Your task to perform on an android device: Go to Yahoo.com Image 0: 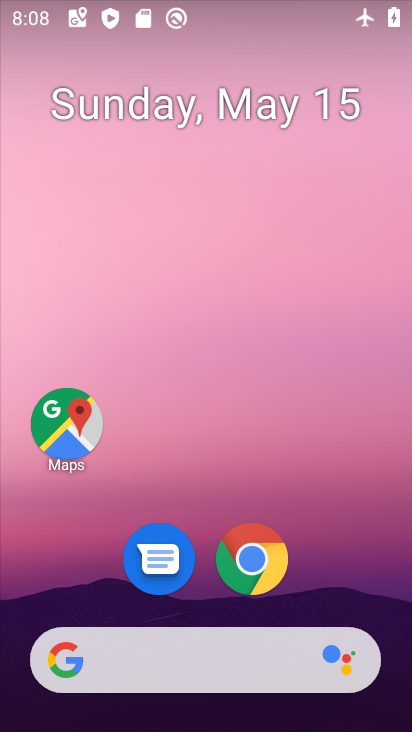
Step 0: drag from (373, 546) to (266, 233)
Your task to perform on an android device: Go to Yahoo.com Image 1: 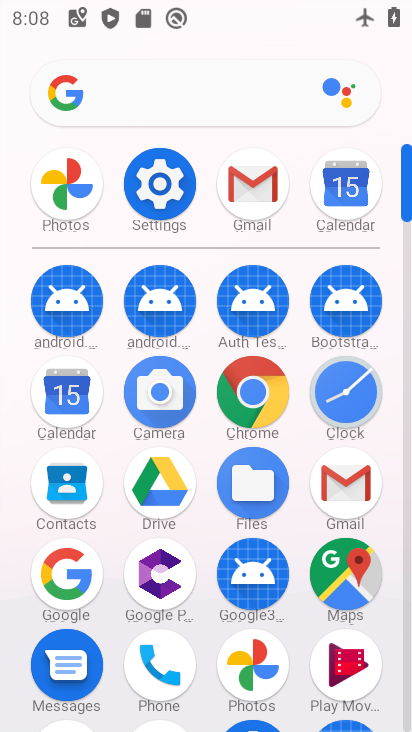
Step 1: click (148, 201)
Your task to perform on an android device: Go to Yahoo.com Image 2: 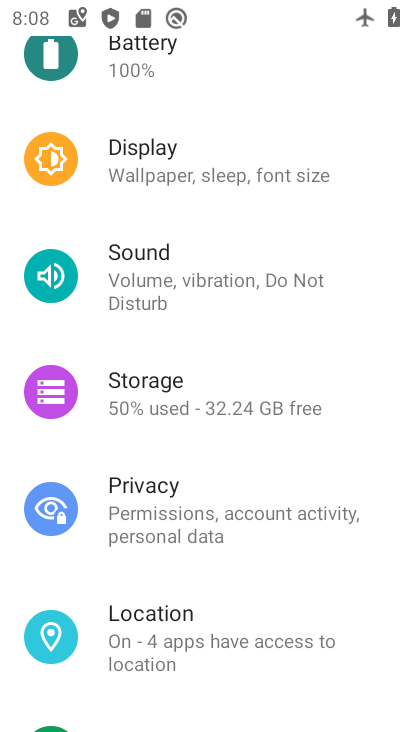
Step 2: drag from (148, 201) to (116, 605)
Your task to perform on an android device: Go to Yahoo.com Image 3: 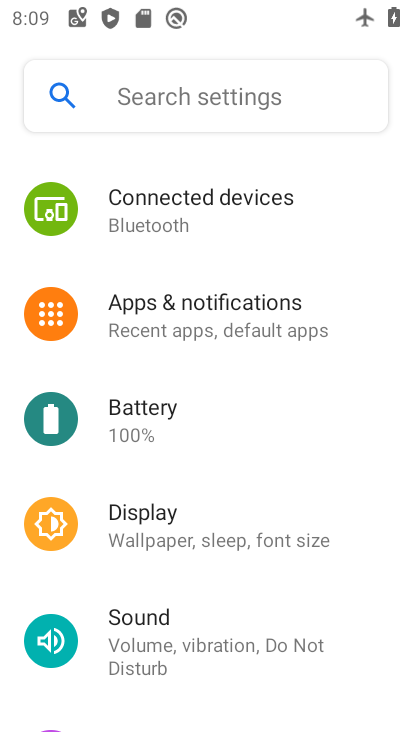
Step 3: drag from (169, 379) to (212, 723)
Your task to perform on an android device: Go to Yahoo.com Image 4: 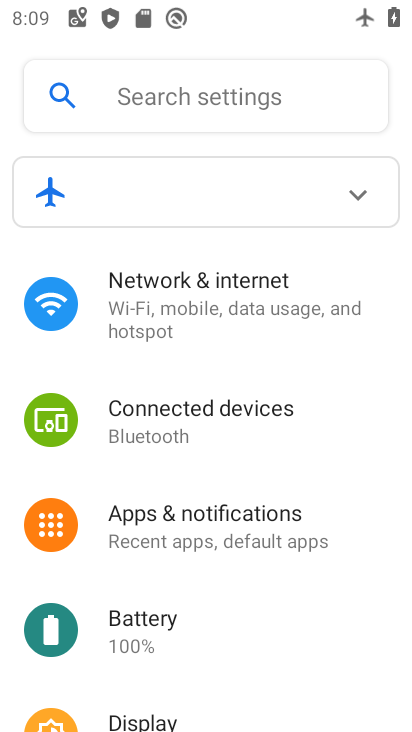
Step 4: click (223, 344)
Your task to perform on an android device: Go to Yahoo.com Image 5: 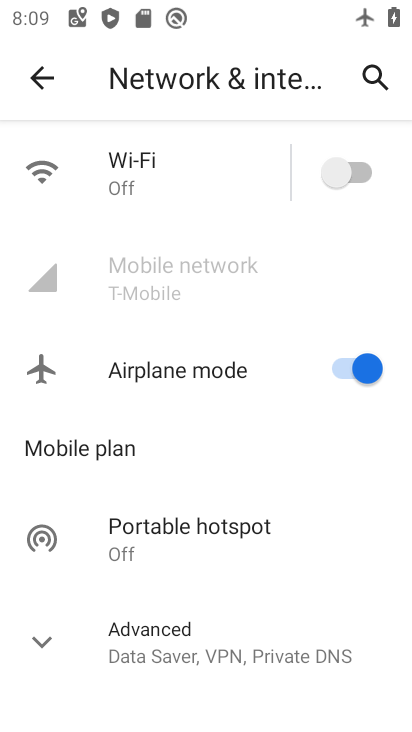
Step 5: click (341, 380)
Your task to perform on an android device: Go to Yahoo.com Image 6: 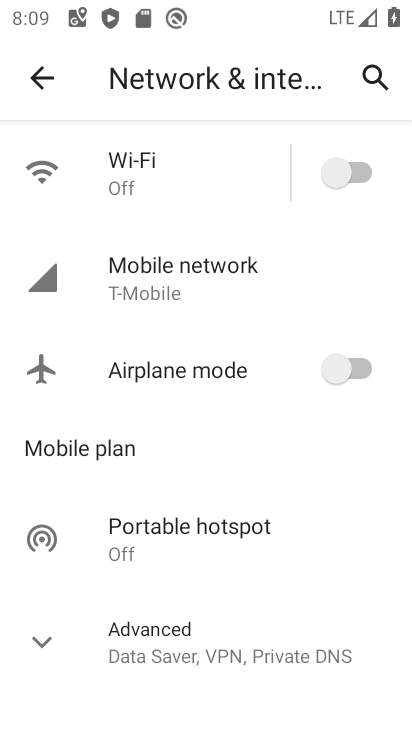
Step 6: click (354, 180)
Your task to perform on an android device: Go to Yahoo.com Image 7: 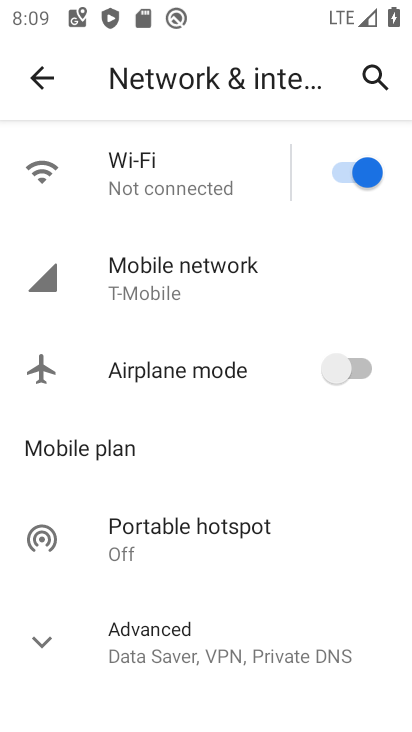
Step 7: press home button
Your task to perform on an android device: Go to Yahoo.com Image 8: 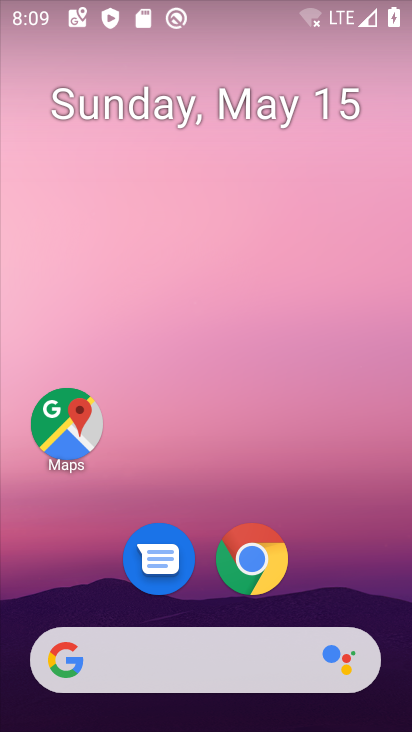
Step 8: click (248, 587)
Your task to perform on an android device: Go to Yahoo.com Image 9: 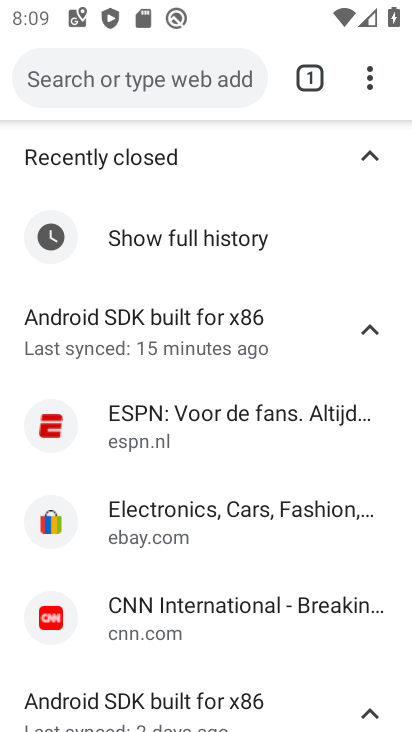
Step 9: click (168, 71)
Your task to perform on an android device: Go to Yahoo.com Image 10: 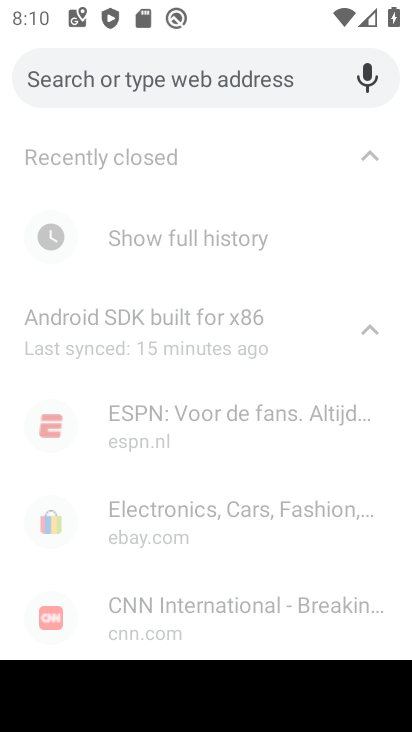
Step 10: type "yahoo.com"
Your task to perform on an android device: Go to Yahoo.com Image 11: 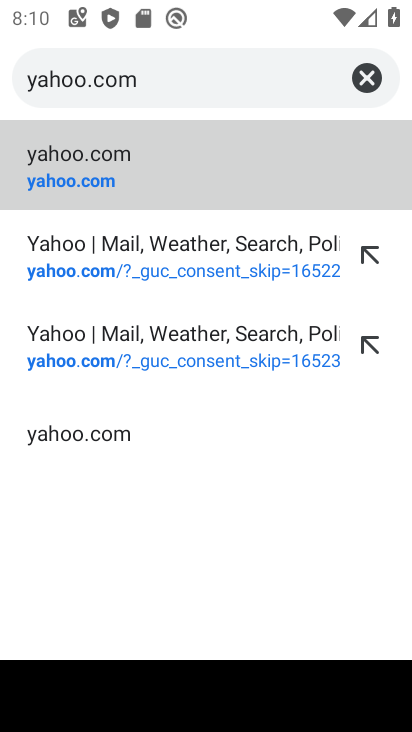
Step 11: click (216, 252)
Your task to perform on an android device: Go to Yahoo.com Image 12: 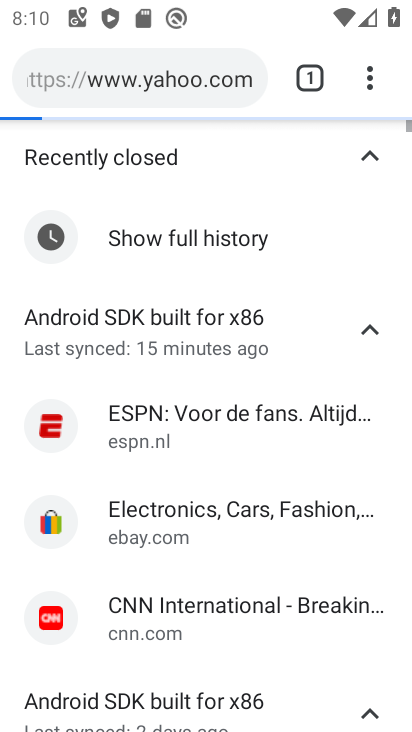
Step 12: task complete